Your task to perform on an android device: change keyboard looks Image 0: 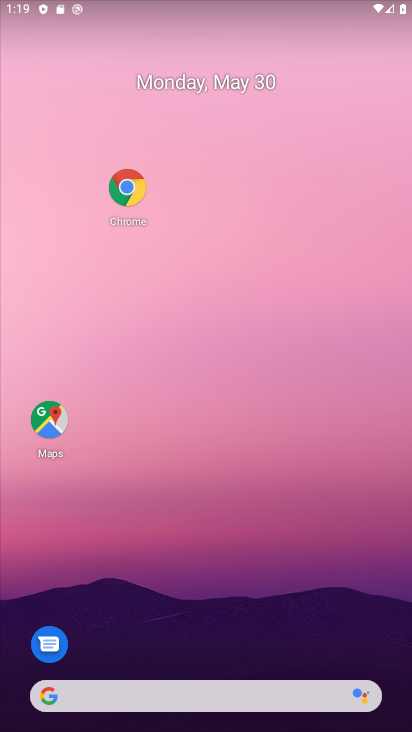
Step 0: drag from (161, 666) to (200, 176)
Your task to perform on an android device: change keyboard looks Image 1: 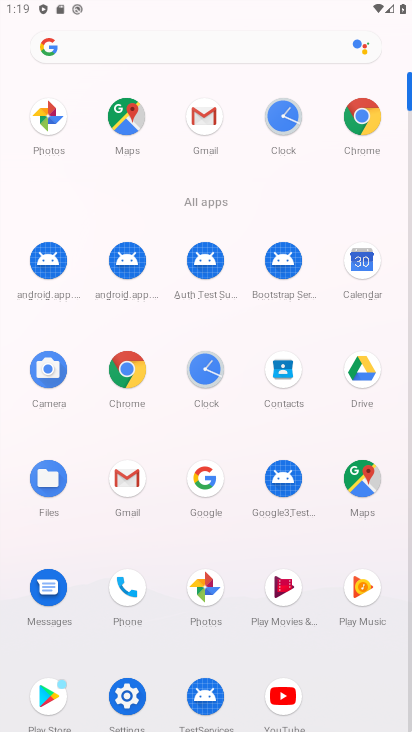
Step 1: click (117, 695)
Your task to perform on an android device: change keyboard looks Image 2: 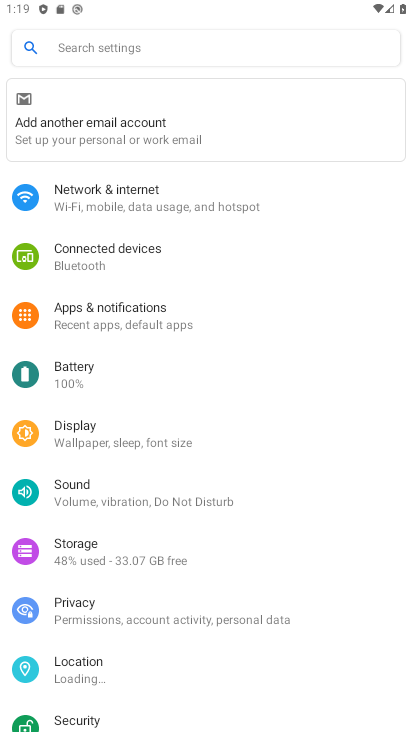
Step 2: drag from (117, 695) to (177, 222)
Your task to perform on an android device: change keyboard looks Image 3: 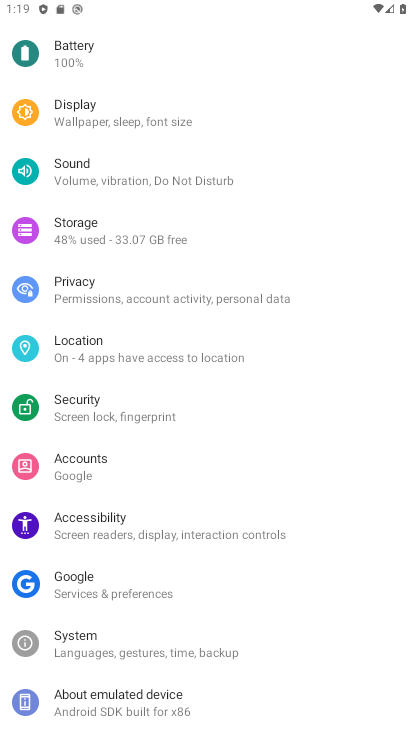
Step 3: drag from (143, 654) to (264, 133)
Your task to perform on an android device: change keyboard looks Image 4: 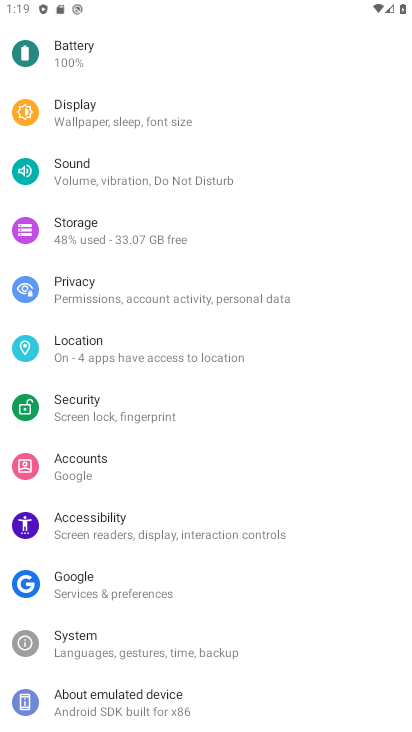
Step 4: click (138, 686)
Your task to perform on an android device: change keyboard looks Image 5: 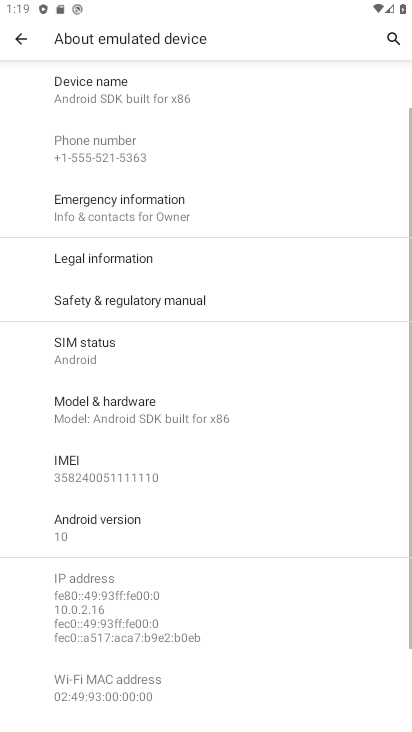
Step 5: press back button
Your task to perform on an android device: change keyboard looks Image 6: 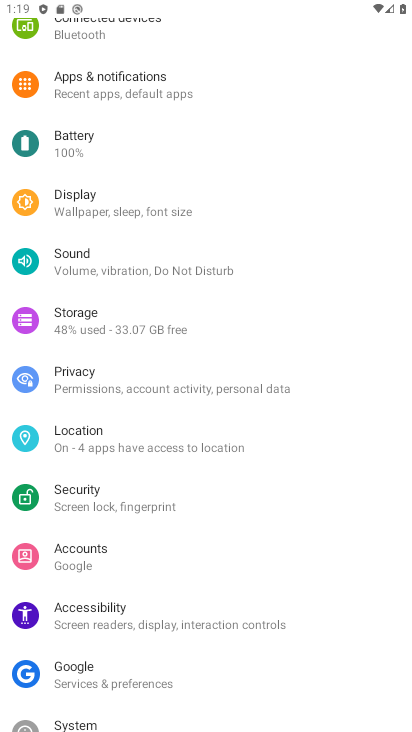
Step 6: drag from (75, 689) to (170, 142)
Your task to perform on an android device: change keyboard looks Image 7: 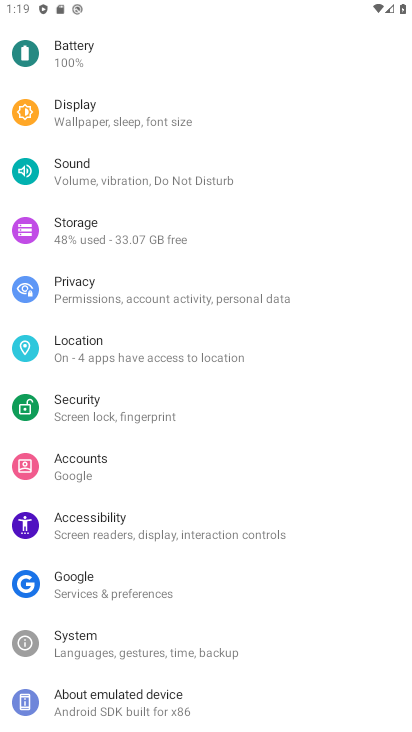
Step 7: click (96, 646)
Your task to perform on an android device: change keyboard looks Image 8: 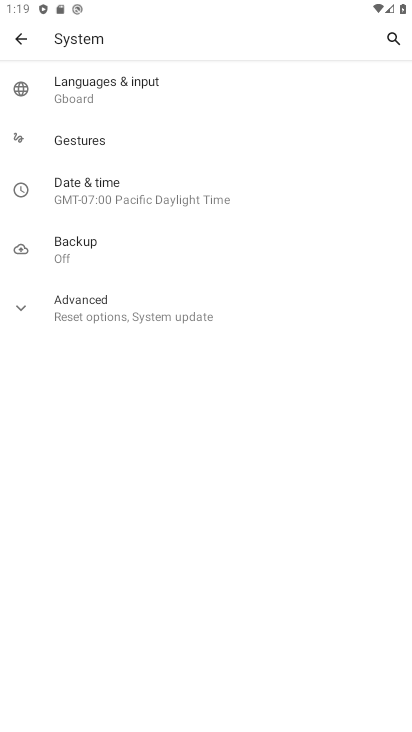
Step 8: click (75, 78)
Your task to perform on an android device: change keyboard looks Image 9: 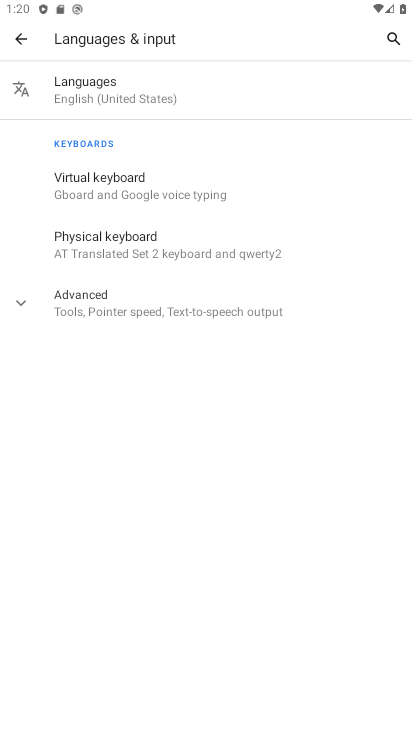
Step 9: click (133, 190)
Your task to perform on an android device: change keyboard looks Image 10: 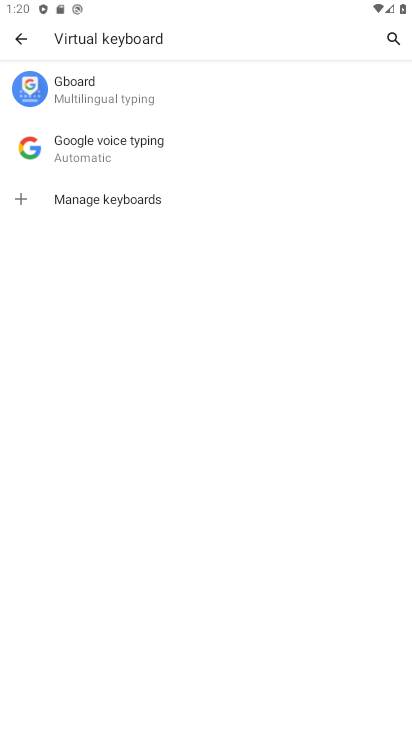
Step 10: click (121, 82)
Your task to perform on an android device: change keyboard looks Image 11: 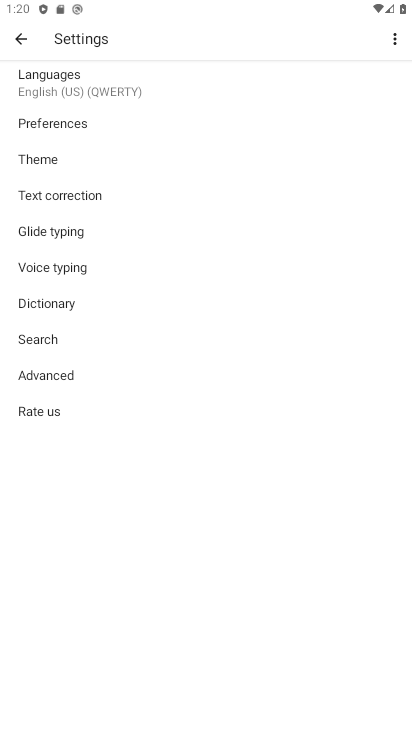
Step 11: click (78, 157)
Your task to perform on an android device: change keyboard looks Image 12: 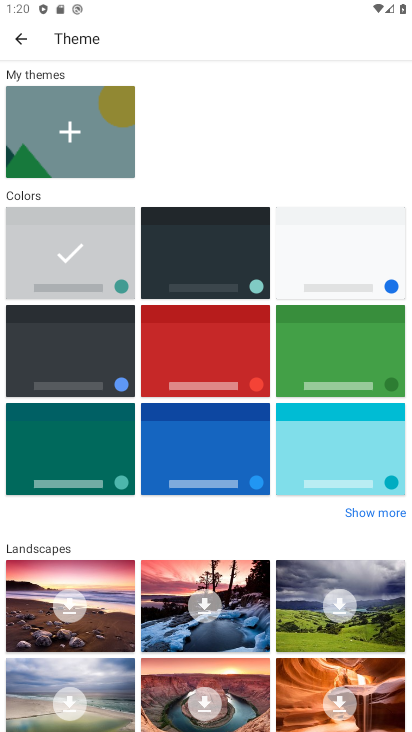
Step 12: click (205, 619)
Your task to perform on an android device: change keyboard looks Image 13: 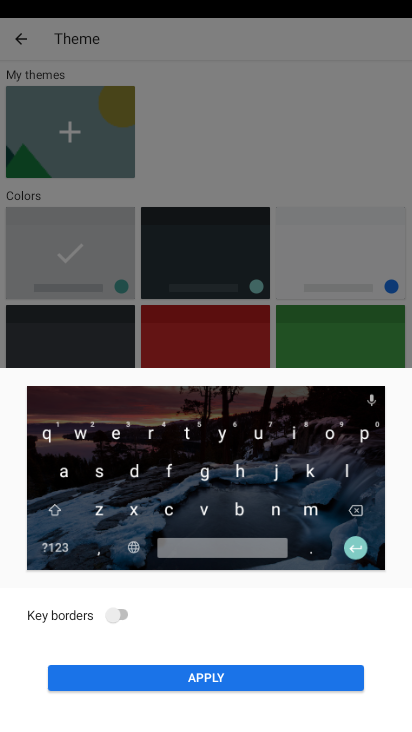
Step 13: click (192, 685)
Your task to perform on an android device: change keyboard looks Image 14: 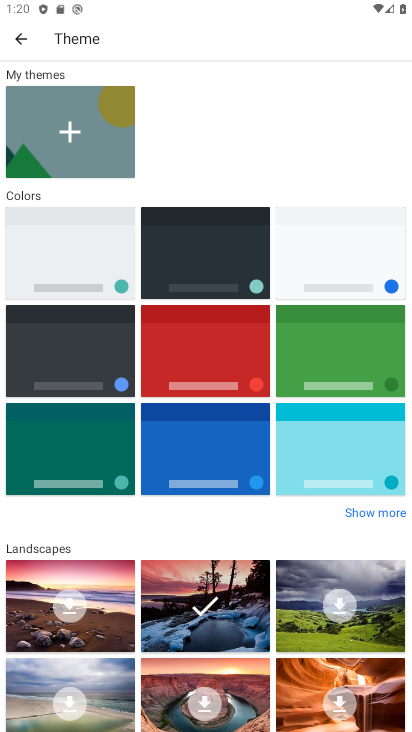
Step 14: task complete